Your task to perform on an android device: Do I have any events this weekend? Image 0: 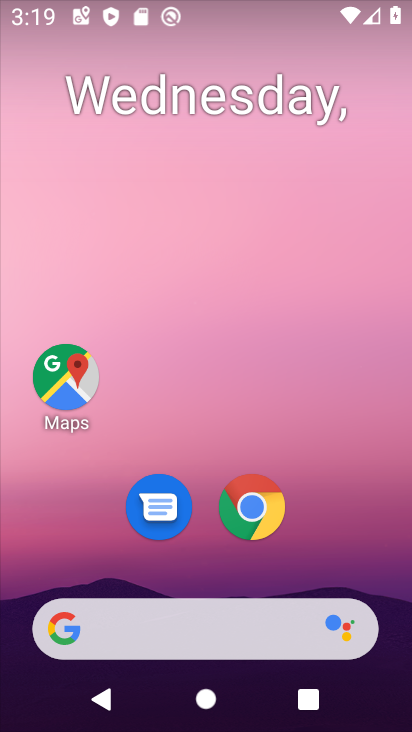
Step 0: click (239, 73)
Your task to perform on an android device: Do I have any events this weekend? Image 1: 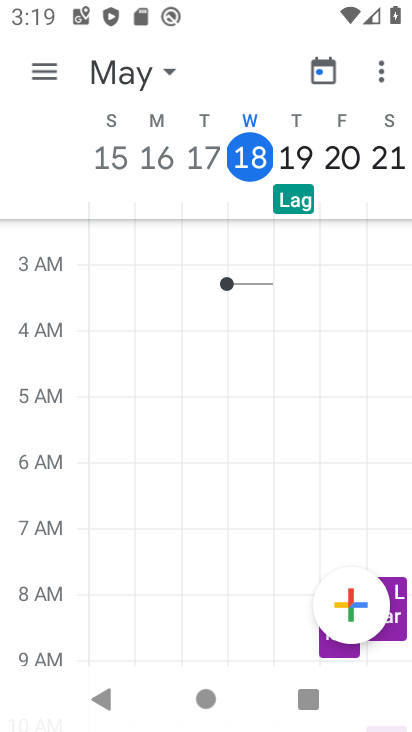
Step 1: click (47, 82)
Your task to perform on an android device: Do I have any events this weekend? Image 2: 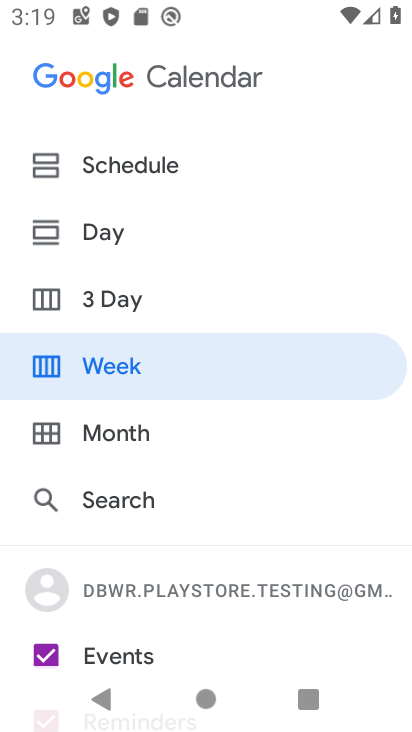
Step 2: click (124, 343)
Your task to perform on an android device: Do I have any events this weekend? Image 3: 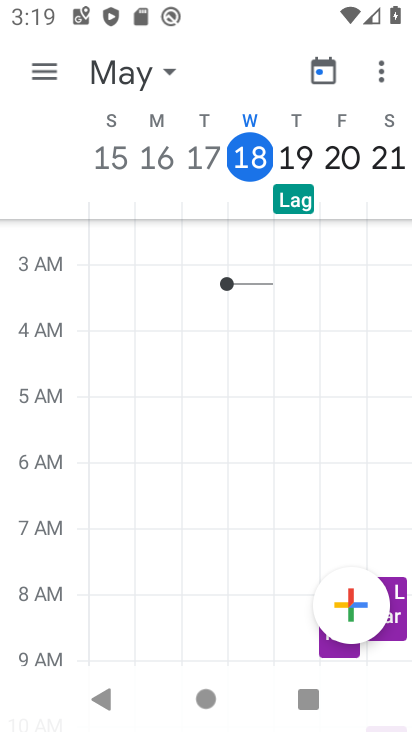
Step 3: task complete